Your task to perform on an android device: Go to calendar. Show me events next week Image 0: 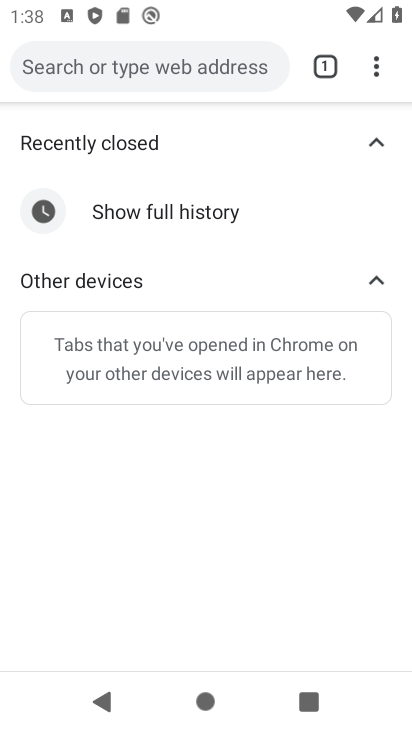
Step 0: press home button
Your task to perform on an android device: Go to calendar. Show me events next week Image 1: 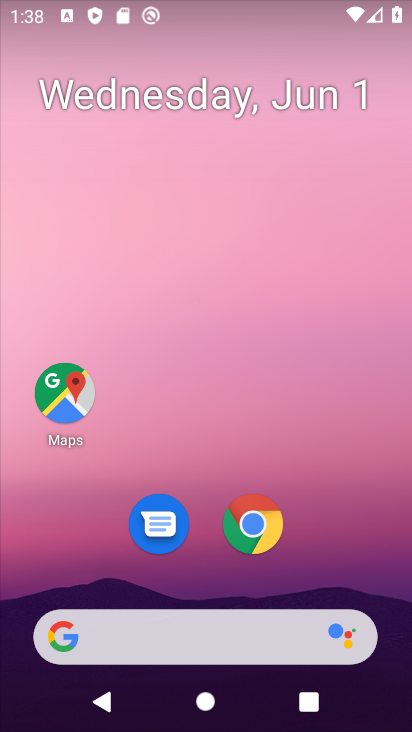
Step 1: drag from (344, 543) to (308, 33)
Your task to perform on an android device: Go to calendar. Show me events next week Image 2: 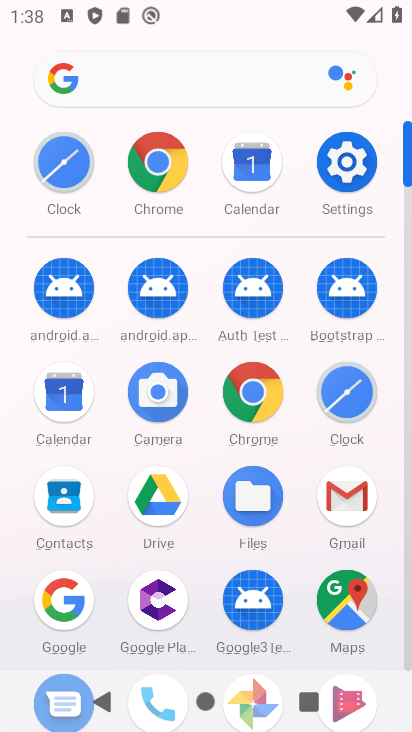
Step 2: click (66, 381)
Your task to perform on an android device: Go to calendar. Show me events next week Image 3: 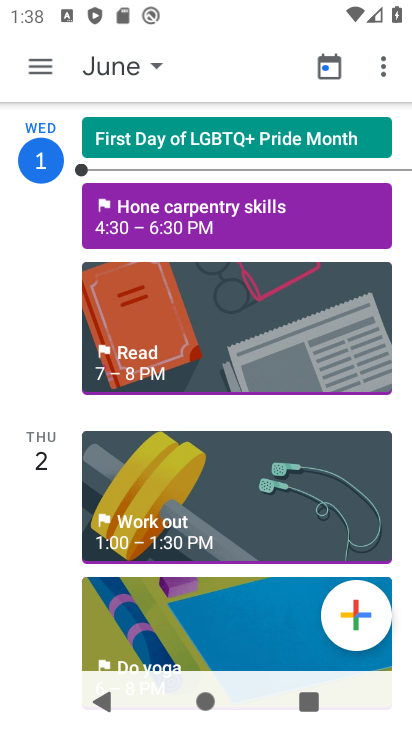
Step 3: click (44, 71)
Your task to perform on an android device: Go to calendar. Show me events next week Image 4: 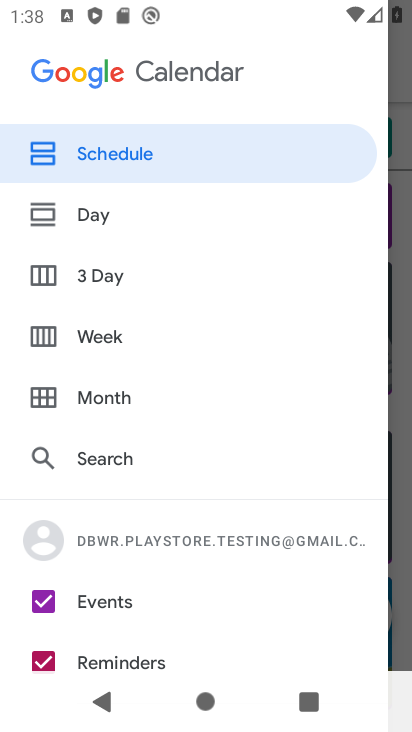
Step 4: click (48, 330)
Your task to perform on an android device: Go to calendar. Show me events next week Image 5: 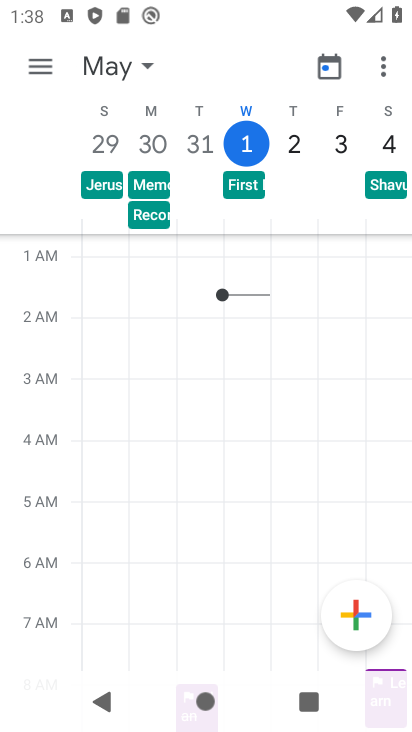
Step 5: task complete